Your task to perform on an android device: turn pop-ups on in chrome Image 0: 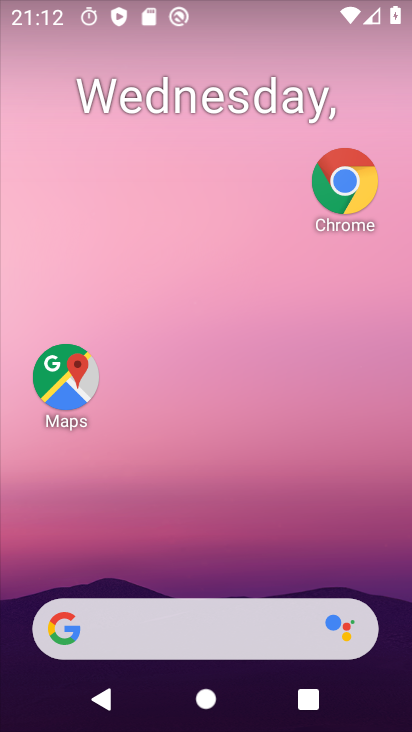
Step 0: drag from (217, 656) to (348, 203)
Your task to perform on an android device: turn pop-ups on in chrome Image 1: 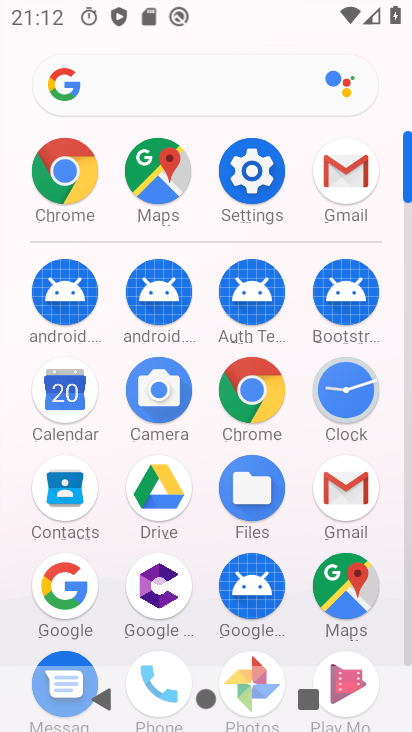
Step 1: click (48, 195)
Your task to perform on an android device: turn pop-ups on in chrome Image 2: 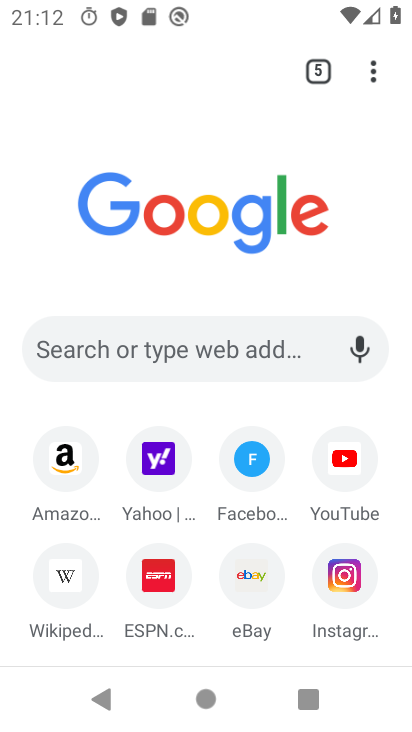
Step 2: click (377, 71)
Your task to perform on an android device: turn pop-ups on in chrome Image 3: 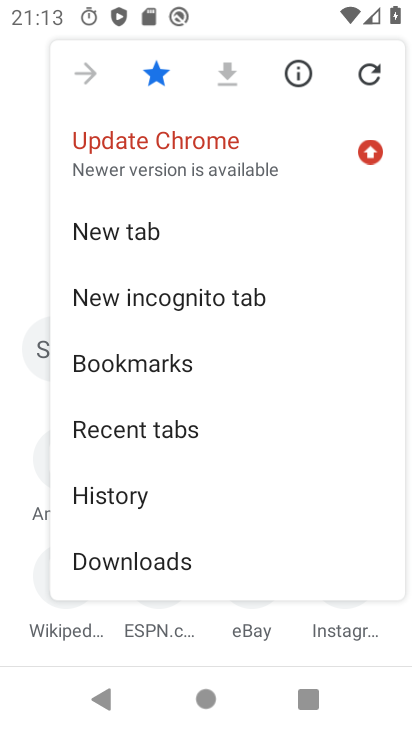
Step 3: drag from (159, 509) to (223, 343)
Your task to perform on an android device: turn pop-ups on in chrome Image 4: 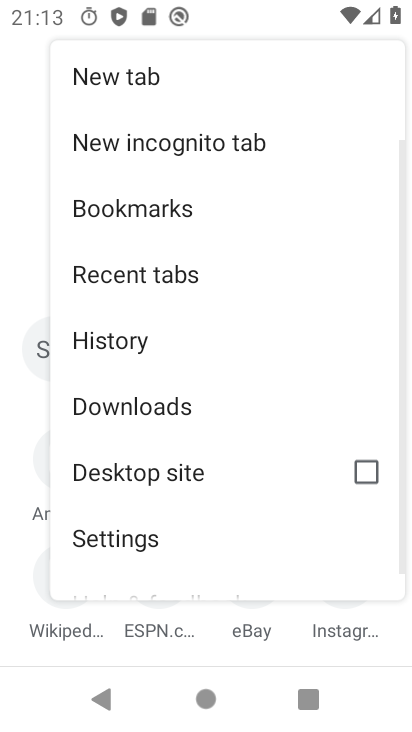
Step 4: click (112, 536)
Your task to perform on an android device: turn pop-ups on in chrome Image 5: 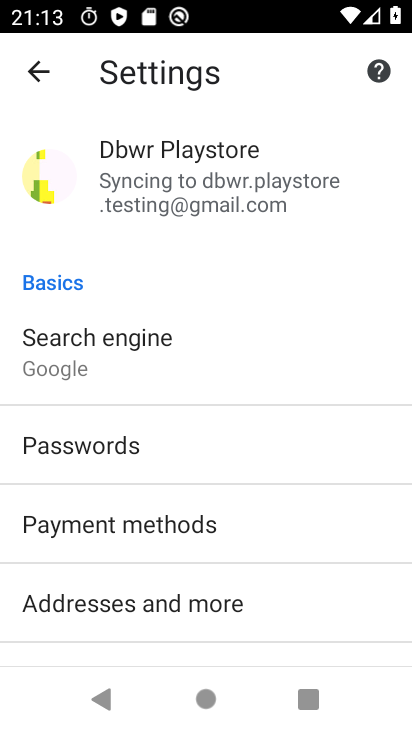
Step 5: drag from (193, 583) to (291, 246)
Your task to perform on an android device: turn pop-ups on in chrome Image 6: 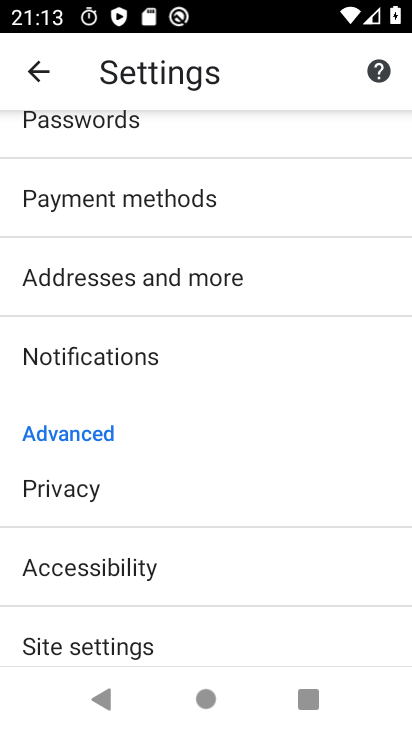
Step 6: click (59, 635)
Your task to perform on an android device: turn pop-ups on in chrome Image 7: 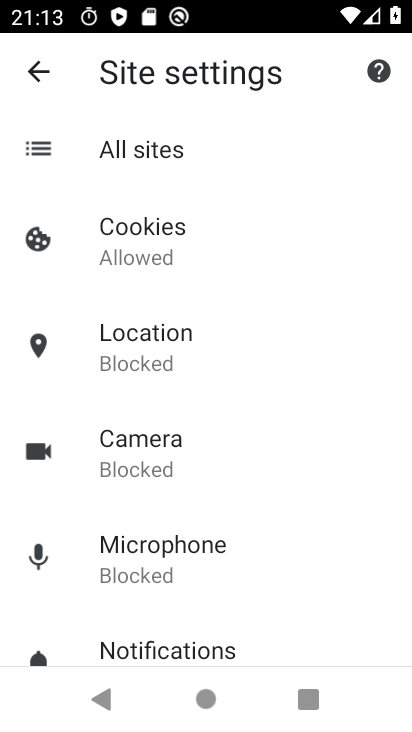
Step 7: drag from (106, 609) to (264, 321)
Your task to perform on an android device: turn pop-ups on in chrome Image 8: 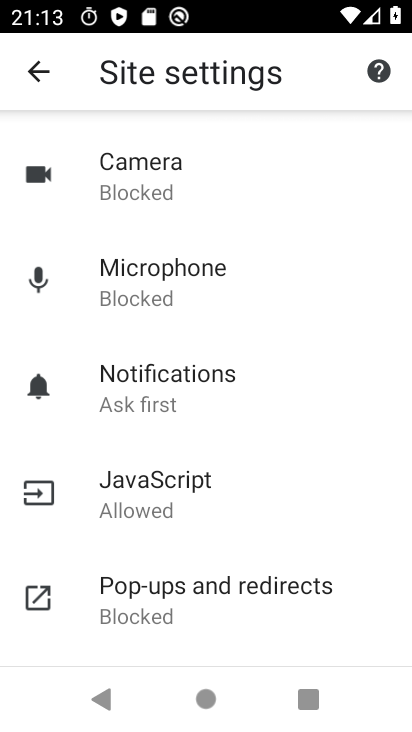
Step 8: click (145, 572)
Your task to perform on an android device: turn pop-ups on in chrome Image 9: 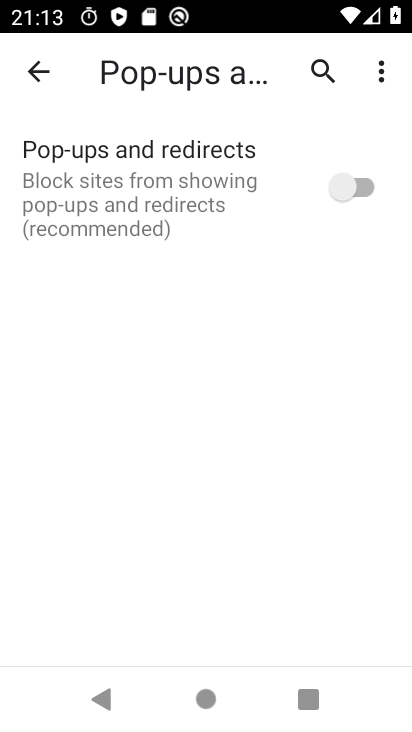
Step 9: click (266, 171)
Your task to perform on an android device: turn pop-ups on in chrome Image 10: 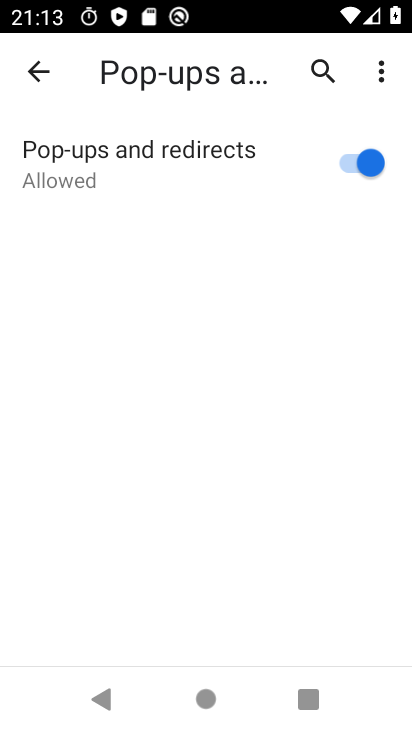
Step 10: task complete